Your task to perform on an android device: Go to settings Image 0: 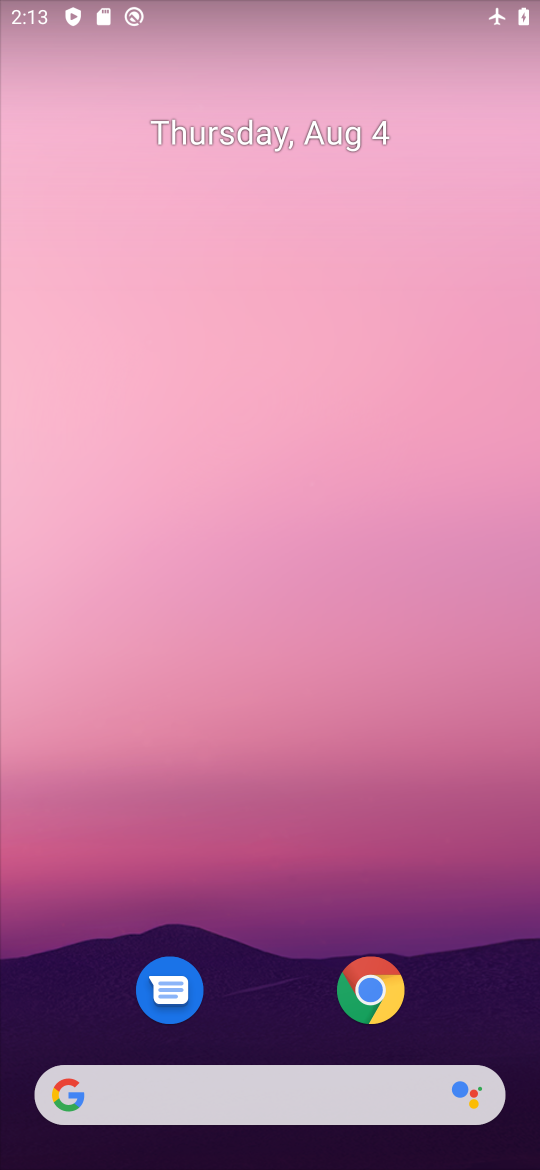
Step 0: drag from (303, 1036) to (257, 0)
Your task to perform on an android device: Go to settings Image 1: 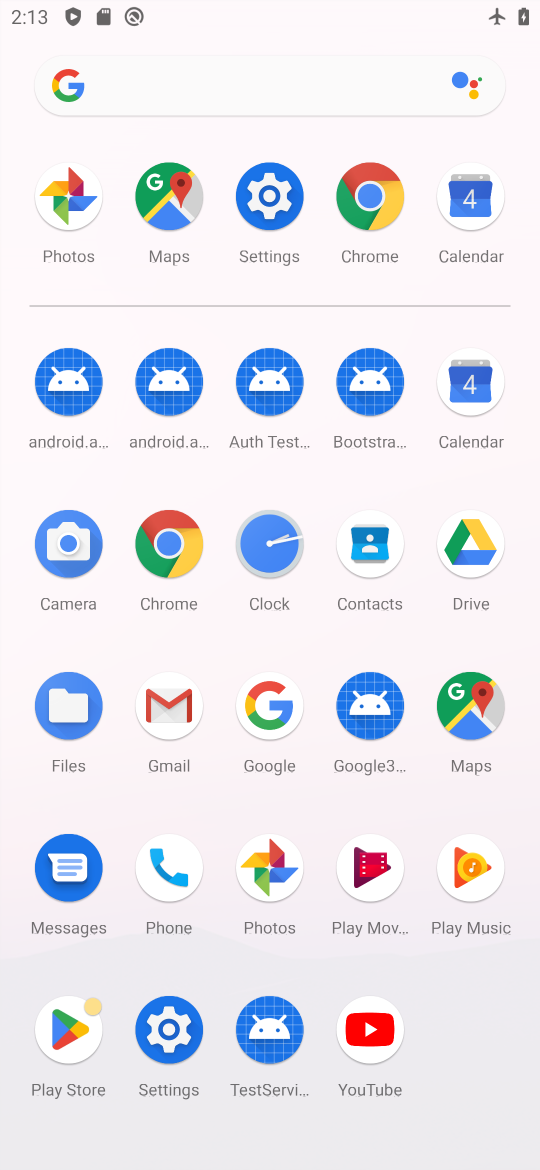
Step 1: click (293, 169)
Your task to perform on an android device: Go to settings Image 2: 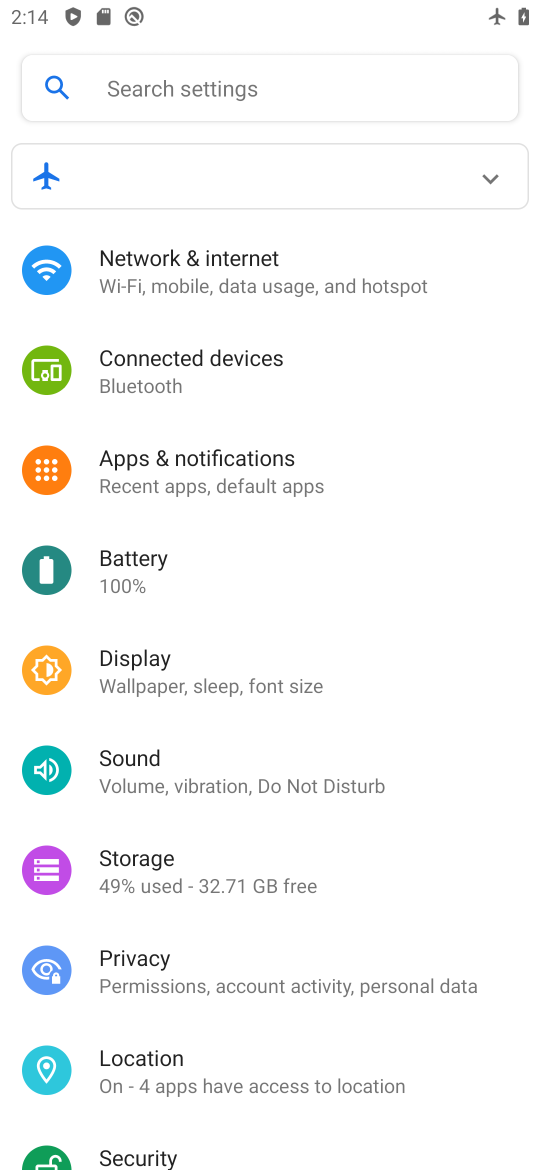
Step 2: task complete